Your task to perform on an android device: Go to Amazon Image 0: 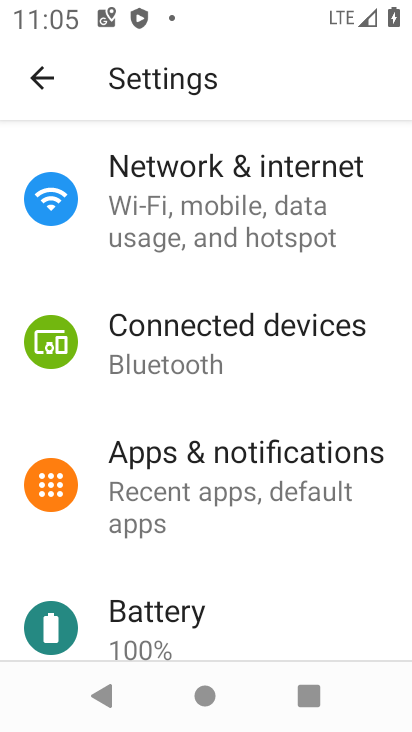
Step 0: press home button
Your task to perform on an android device: Go to Amazon Image 1: 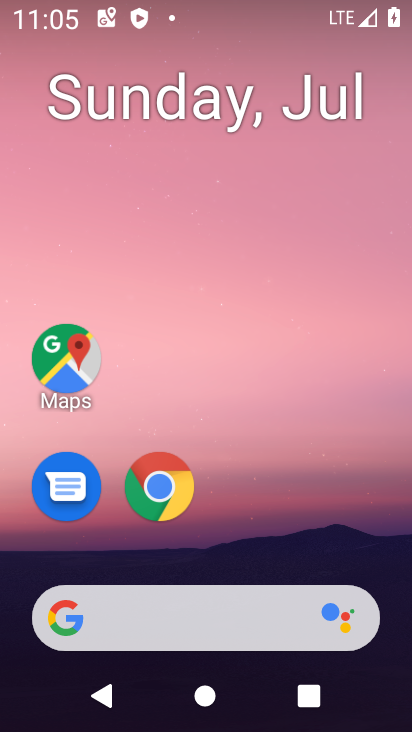
Step 1: drag from (331, 508) to (372, 91)
Your task to perform on an android device: Go to Amazon Image 2: 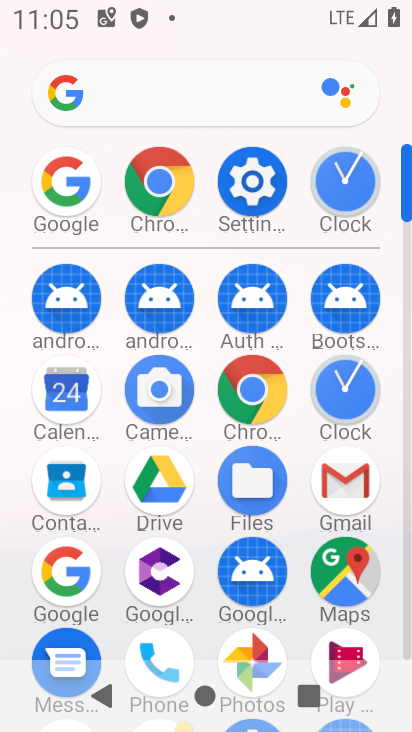
Step 2: click (253, 389)
Your task to perform on an android device: Go to Amazon Image 3: 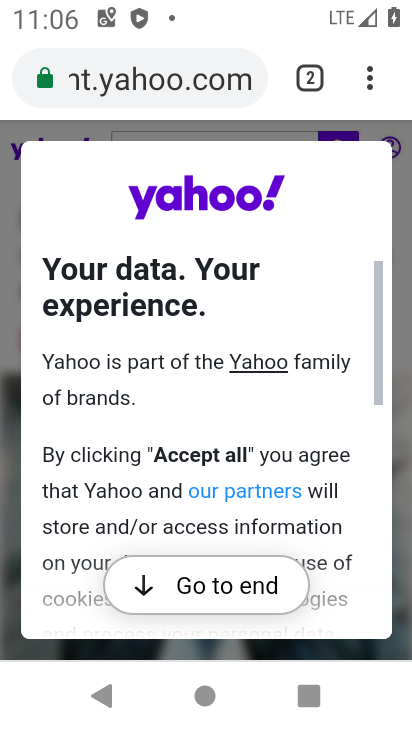
Step 3: click (210, 91)
Your task to perform on an android device: Go to Amazon Image 4: 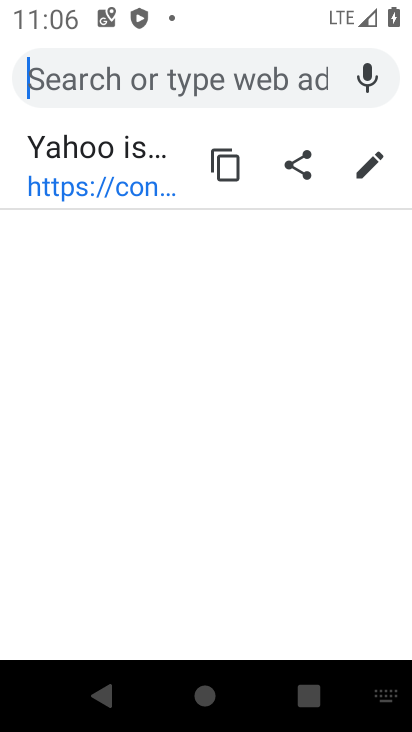
Step 4: type "amazon"
Your task to perform on an android device: Go to Amazon Image 5: 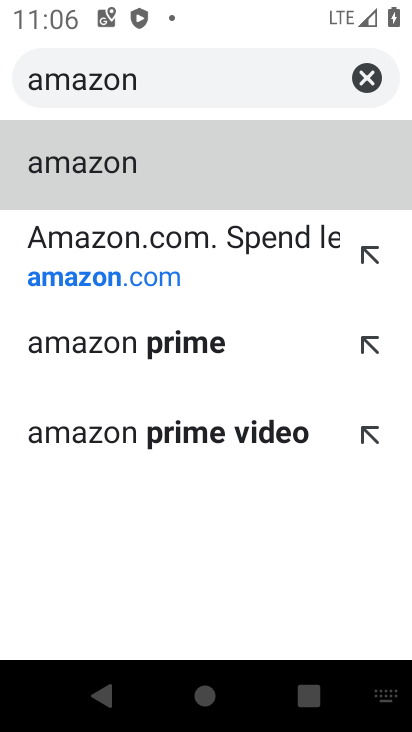
Step 5: click (222, 147)
Your task to perform on an android device: Go to Amazon Image 6: 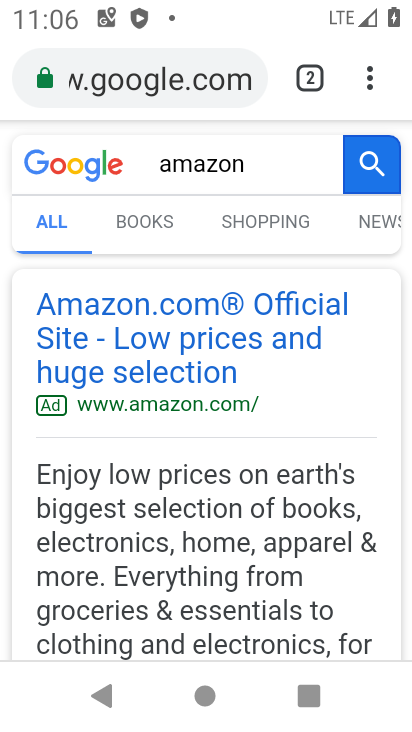
Step 6: task complete